Your task to perform on an android device: see creations saved in the google photos Image 0: 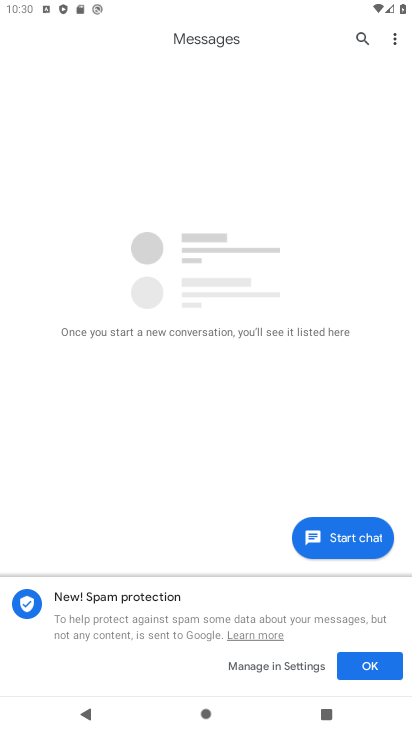
Step 0: press home button
Your task to perform on an android device: see creations saved in the google photos Image 1: 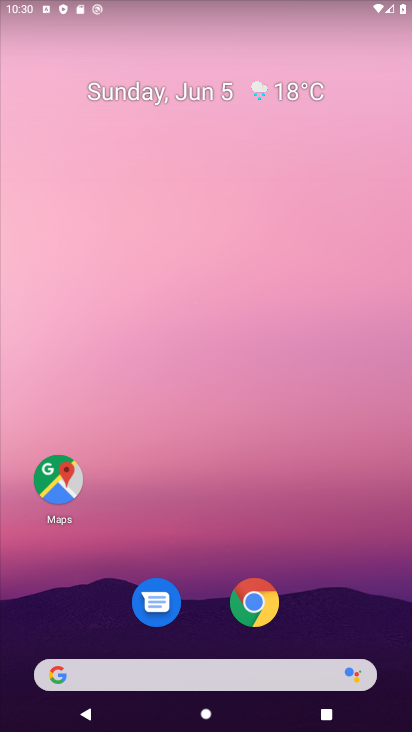
Step 1: drag from (336, 598) to (285, 120)
Your task to perform on an android device: see creations saved in the google photos Image 2: 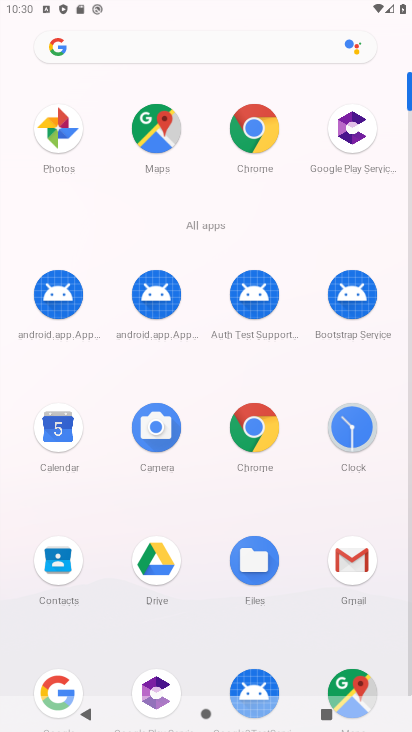
Step 2: click (42, 143)
Your task to perform on an android device: see creations saved in the google photos Image 3: 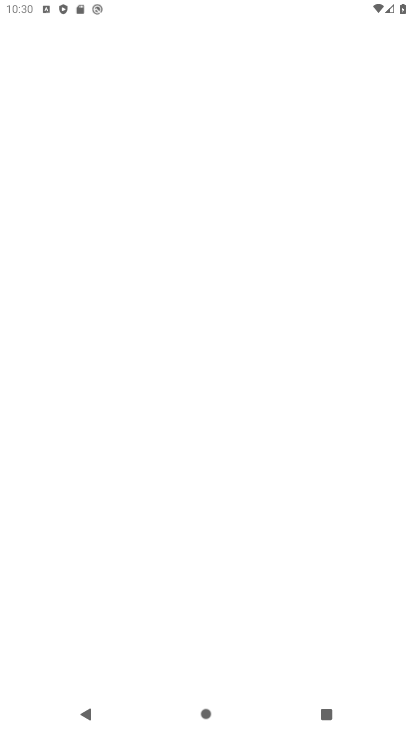
Step 3: task complete